Your task to perform on an android device: Turn on the flashlight Image 0: 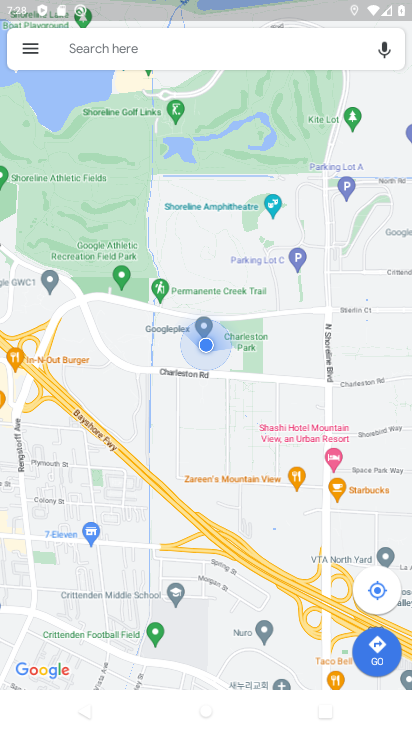
Step 0: drag from (245, 0) to (267, 465)
Your task to perform on an android device: Turn on the flashlight Image 1: 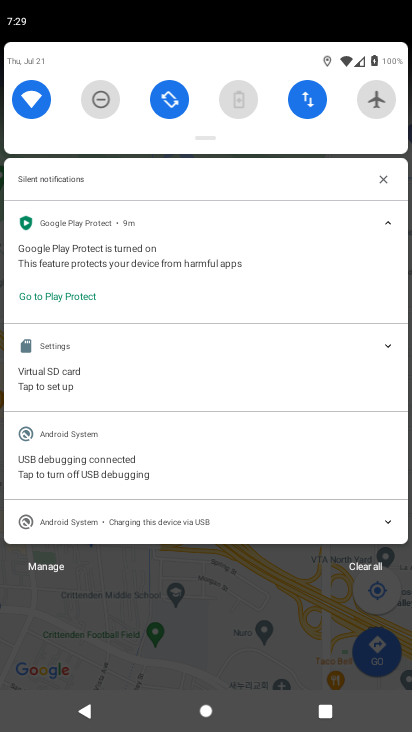
Step 1: drag from (196, 90) to (224, 530)
Your task to perform on an android device: Turn on the flashlight Image 2: 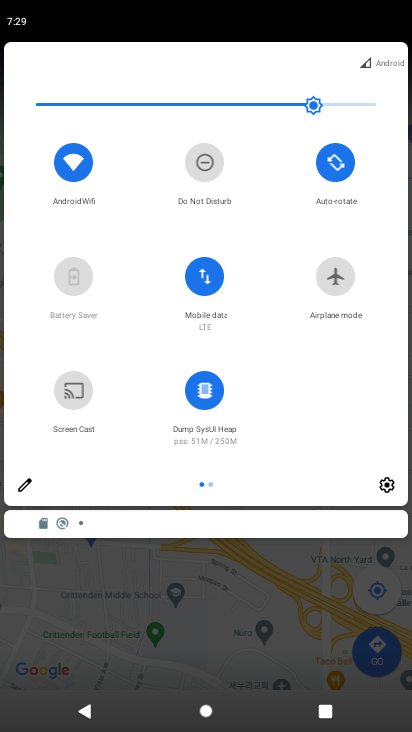
Step 2: drag from (336, 377) to (4, 433)
Your task to perform on an android device: Turn on the flashlight Image 3: 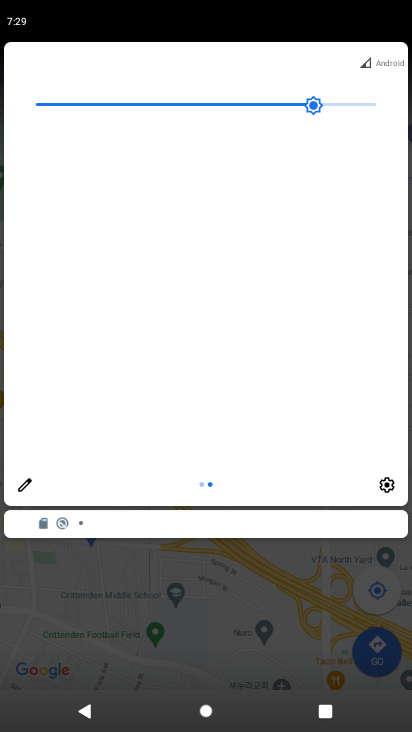
Step 3: click (22, 484)
Your task to perform on an android device: Turn on the flashlight Image 4: 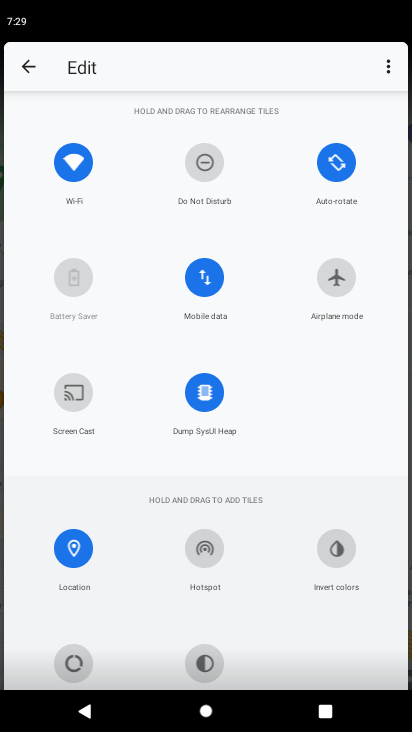
Step 4: task complete